Your task to perform on an android device: visit the assistant section in the google photos Image 0: 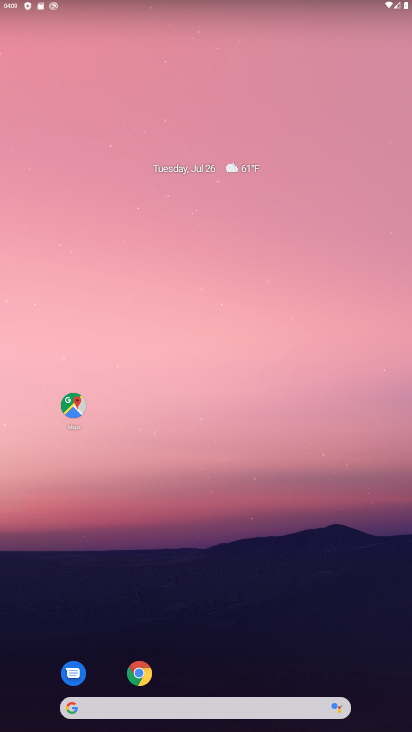
Step 0: press home button
Your task to perform on an android device: visit the assistant section in the google photos Image 1: 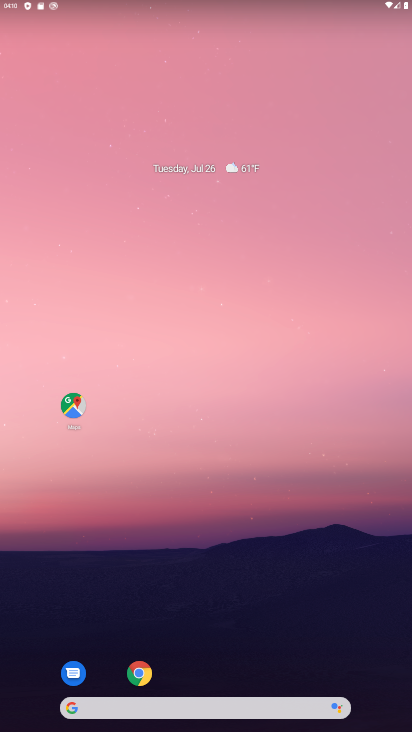
Step 1: drag from (204, 672) to (261, 20)
Your task to perform on an android device: visit the assistant section in the google photos Image 2: 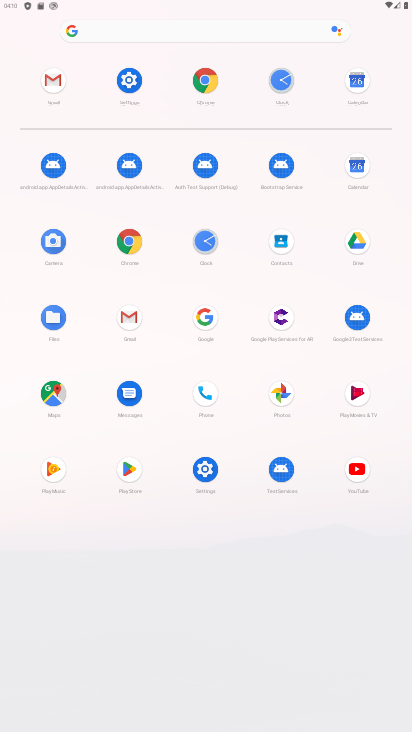
Step 2: click (278, 388)
Your task to perform on an android device: visit the assistant section in the google photos Image 3: 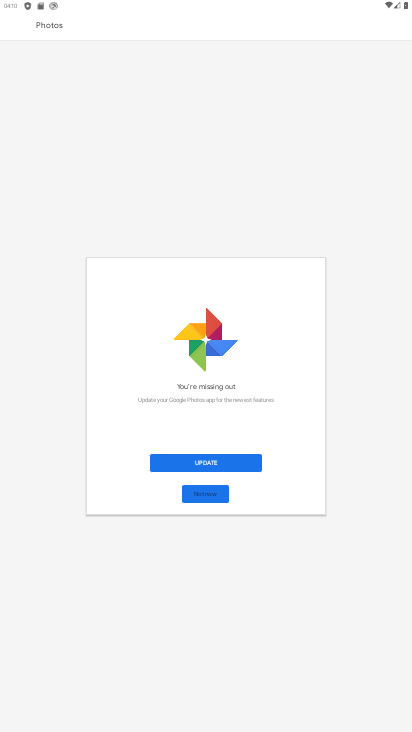
Step 3: click (241, 463)
Your task to perform on an android device: visit the assistant section in the google photos Image 4: 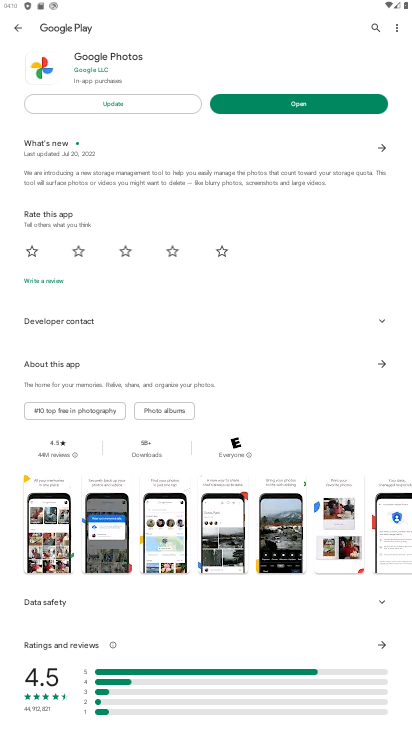
Step 4: click (99, 104)
Your task to perform on an android device: visit the assistant section in the google photos Image 5: 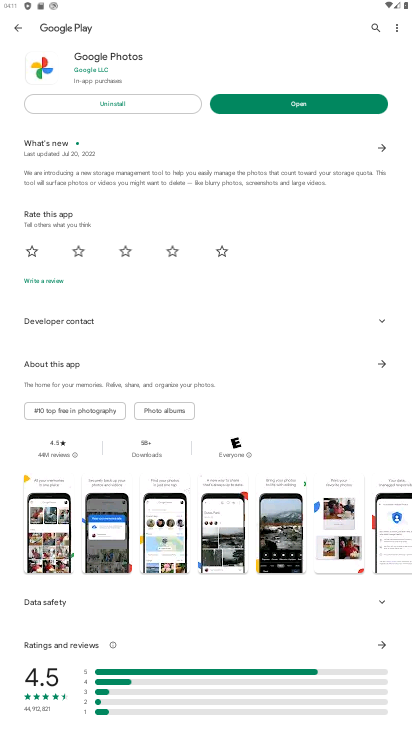
Step 5: click (350, 111)
Your task to perform on an android device: visit the assistant section in the google photos Image 6: 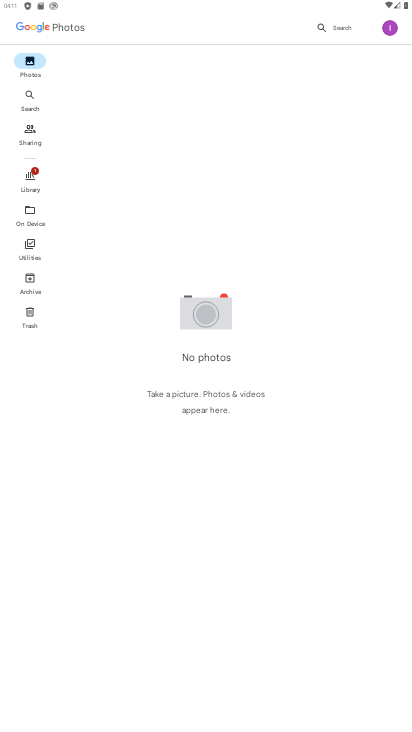
Step 6: task complete